Your task to perform on an android device: Open accessibility settings Image 0: 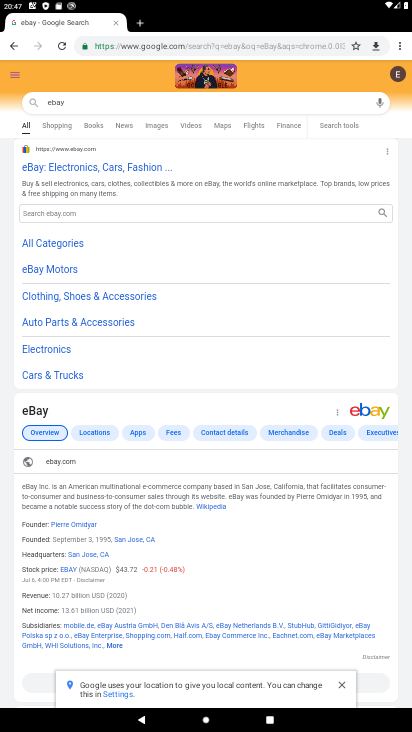
Step 0: press home button
Your task to perform on an android device: Open accessibility settings Image 1: 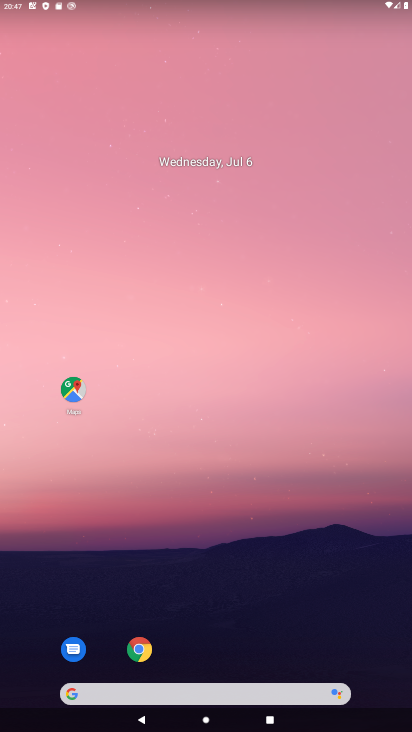
Step 1: drag from (217, 658) to (357, 6)
Your task to perform on an android device: Open accessibility settings Image 2: 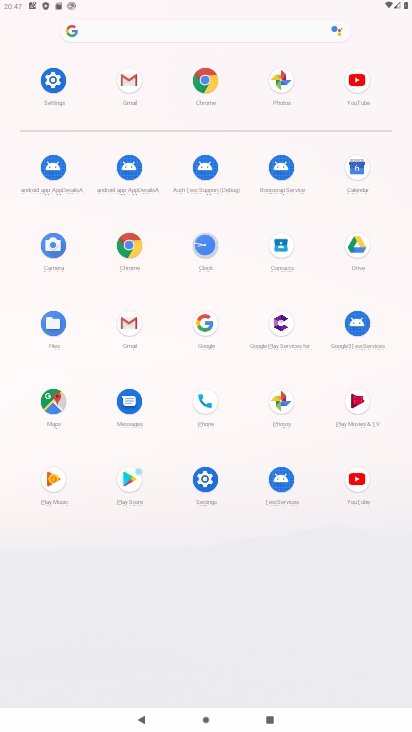
Step 2: click (208, 490)
Your task to perform on an android device: Open accessibility settings Image 3: 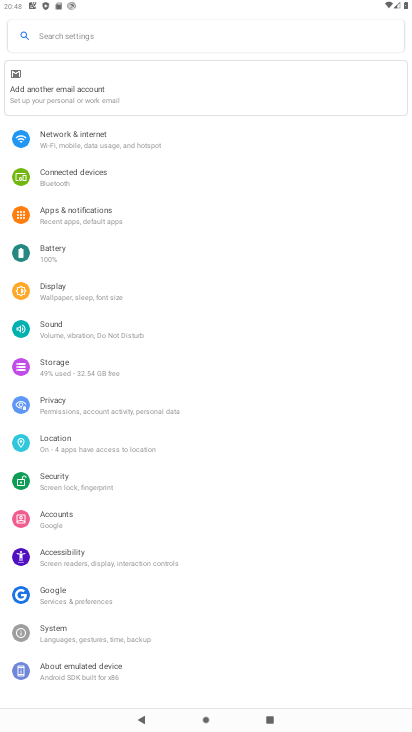
Step 3: click (102, 560)
Your task to perform on an android device: Open accessibility settings Image 4: 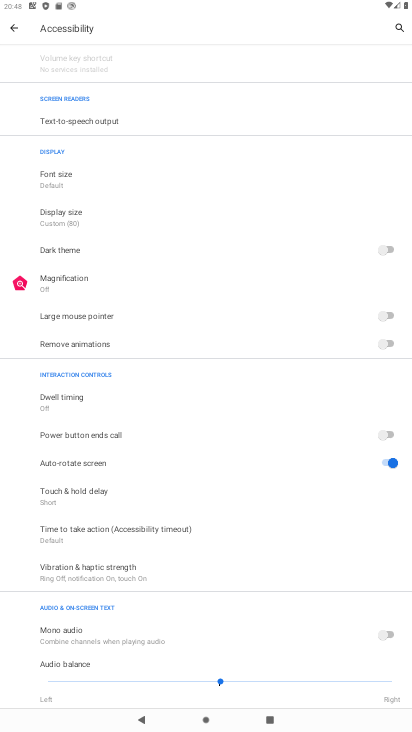
Step 4: task complete